Your task to perform on an android device: Go to internet settings Image 0: 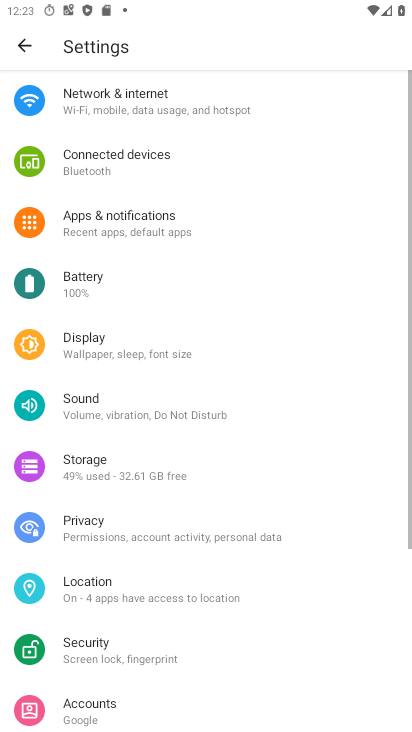
Step 0: press home button
Your task to perform on an android device: Go to internet settings Image 1: 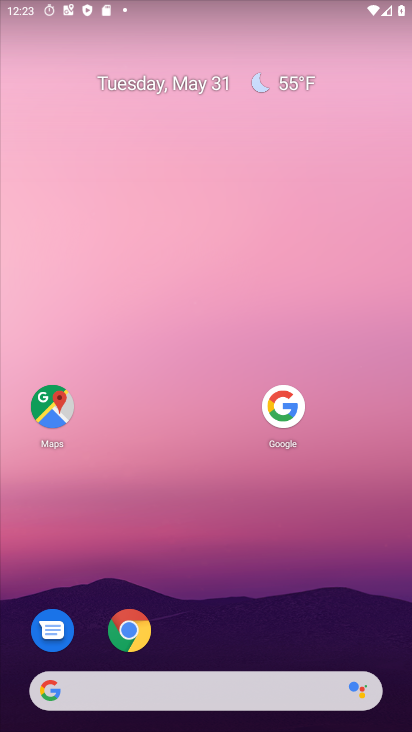
Step 1: drag from (199, 661) to (405, 319)
Your task to perform on an android device: Go to internet settings Image 2: 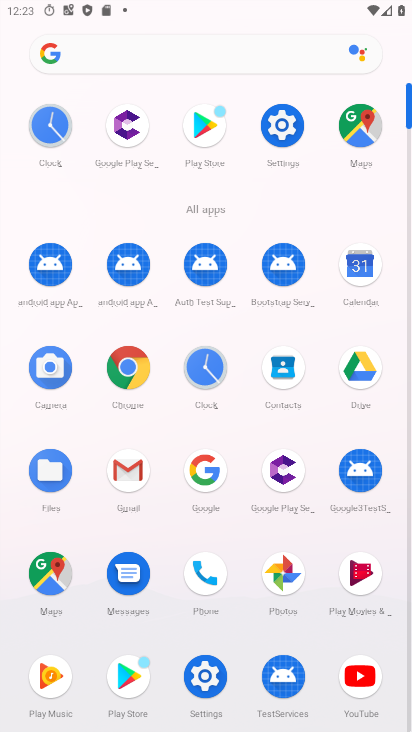
Step 2: click (279, 126)
Your task to perform on an android device: Go to internet settings Image 3: 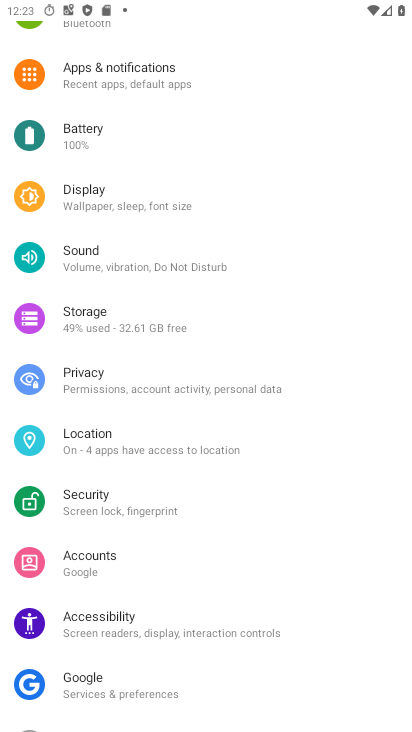
Step 3: drag from (296, 116) to (171, 531)
Your task to perform on an android device: Go to internet settings Image 4: 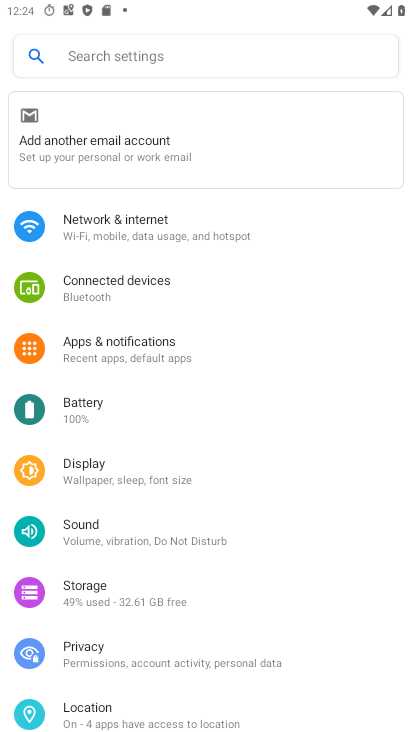
Step 4: click (183, 239)
Your task to perform on an android device: Go to internet settings Image 5: 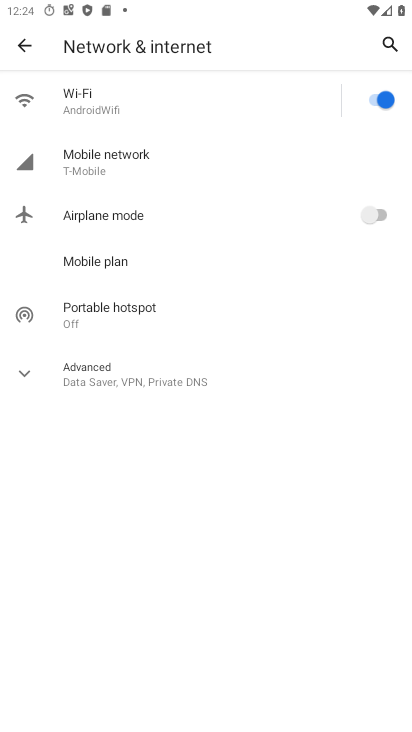
Step 5: task complete